Your task to perform on an android device: Go to Reddit.com Image 0: 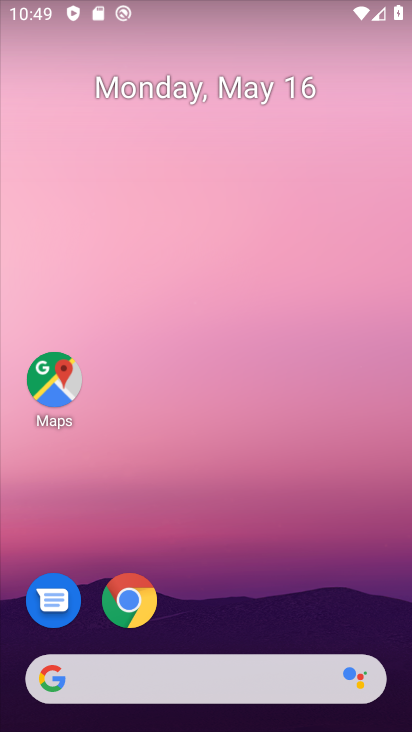
Step 0: click (125, 602)
Your task to perform on an android device: Go to Reddit.com Image 1: 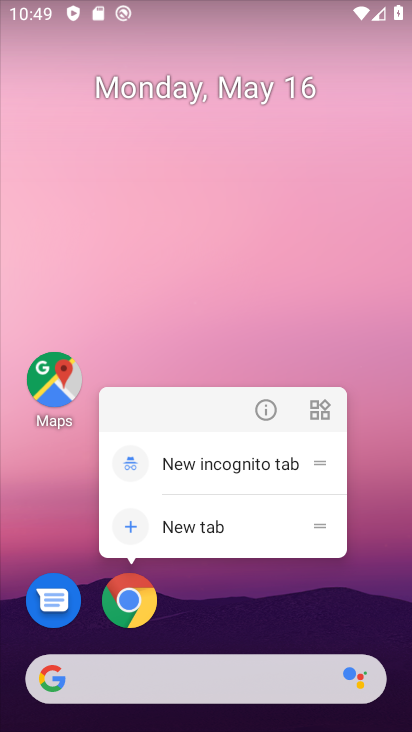
Step 1: click (263, 405)
Your task to perform on an android device: Go to Reddit.com Image 2: 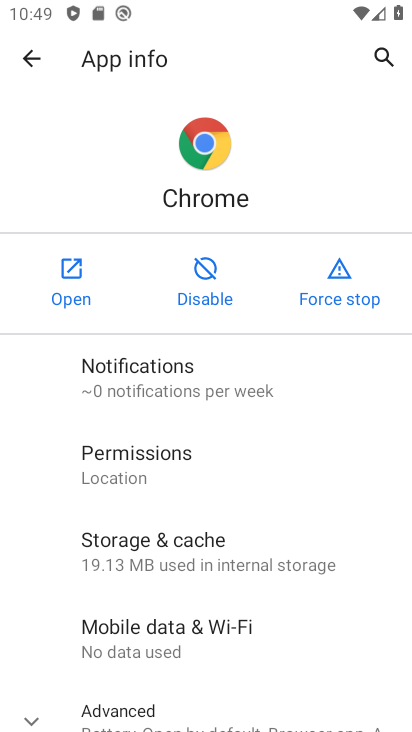
Step 2: click (70, 292)
Your task to perform on an android device: Go to Reddit.com Image 3: 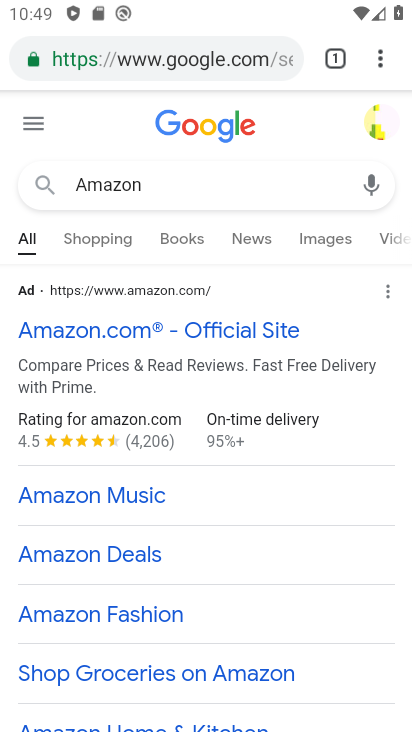
Step 3: click (203, 56)
Your task to perform on an android device: Go to Reddit.com Image 4: 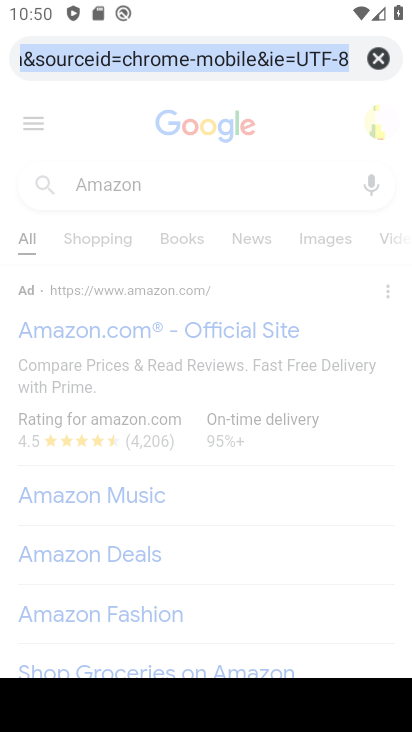
Step 4: type "Reddit.com"
Your task to perform on an android device: Go to Reddit.com Image 5: 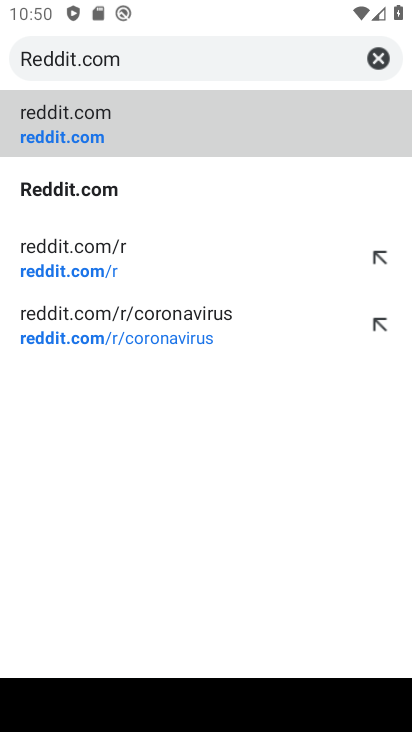
Step 5: click (125, 145)
Your task to perform on an android device: Go to Reddit.com Image 6: 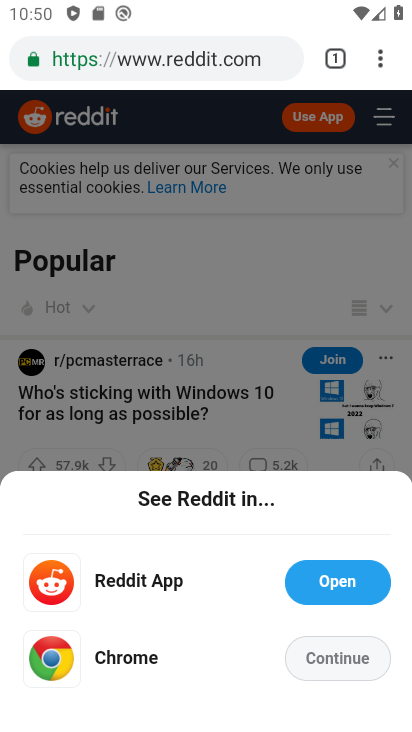
Step 6: task complete